Your task to perform on an android device: open chrome privacy settings Image 0: 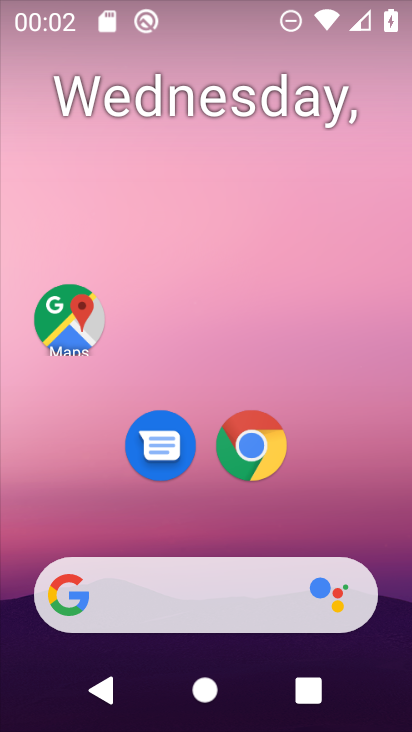
Step 0: click (268, 438)
Your task to perform on an android device: open chrome privacy settings Image 1: 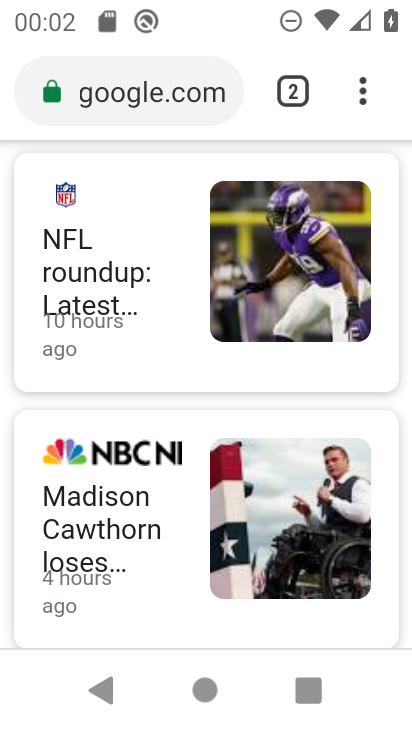
Step 1: click (368, 125)
Your task to perform on an android device: open chrome privacy settings Image 2: 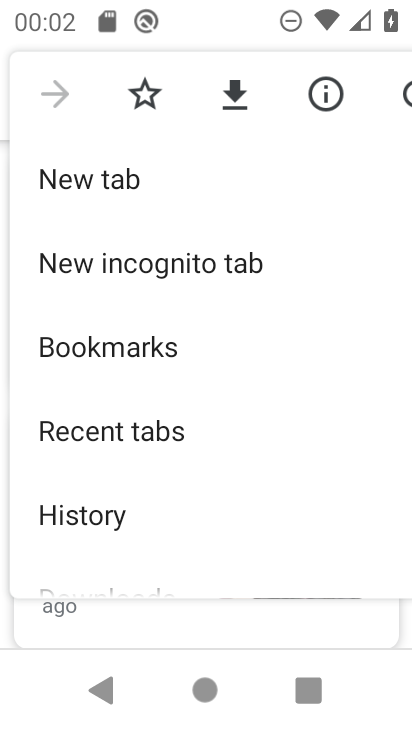
Step 2: drag from (150, 515) to (198, 294)
Your task to perform on an android device: open chrome privacy settings Image 3: 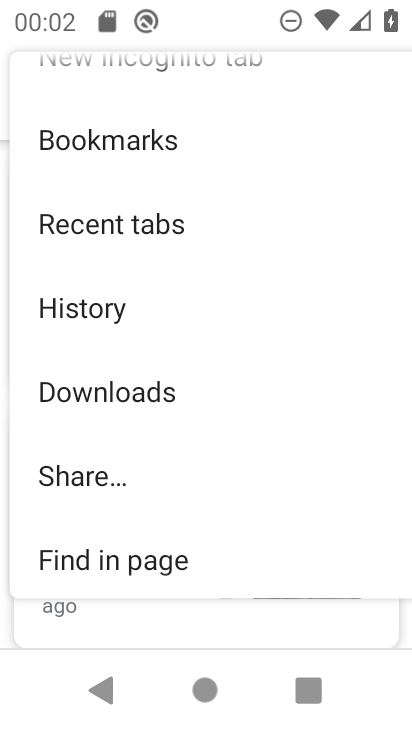
Step 3: drag from (192, 508) to (211, 343)
Your task to perform on an android device: open chrome privacy settings Image 4: 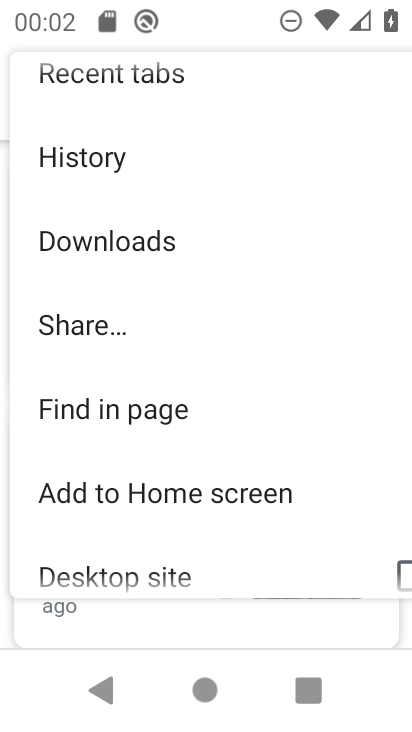
Step 4: drag from (146, 524) to (151, 359)
Your task to perform on an android device: open chrome privacy settings Image 5: 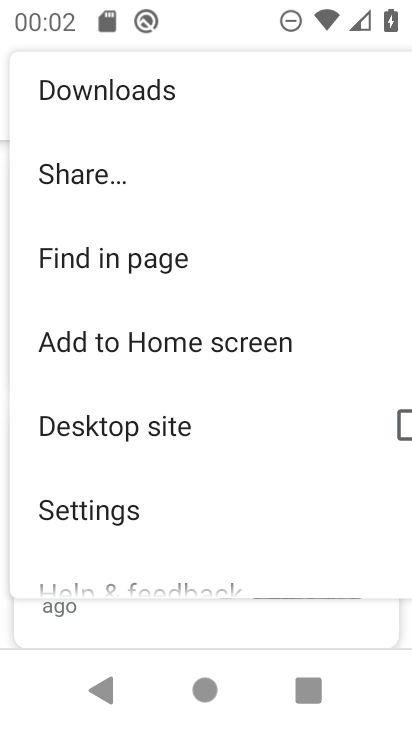
Step 5: click (164, 517)
Your task to perform on an android device: open chrome privacy settings Image 6: 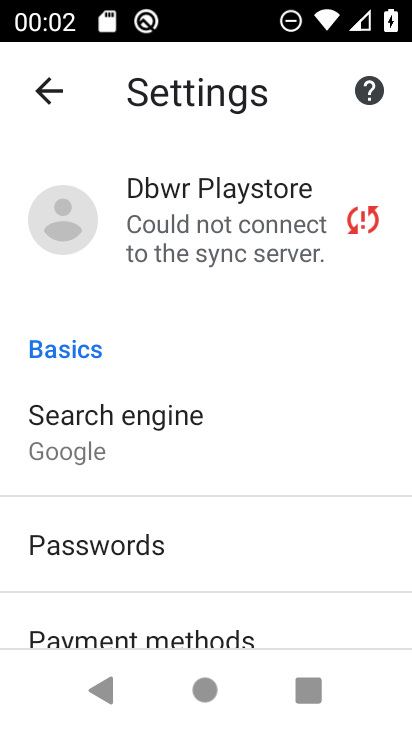
Step 6: drag from (212, 372) to (228, 335)
Your task to perform on an android device: open chrome privacy settings Image 7: 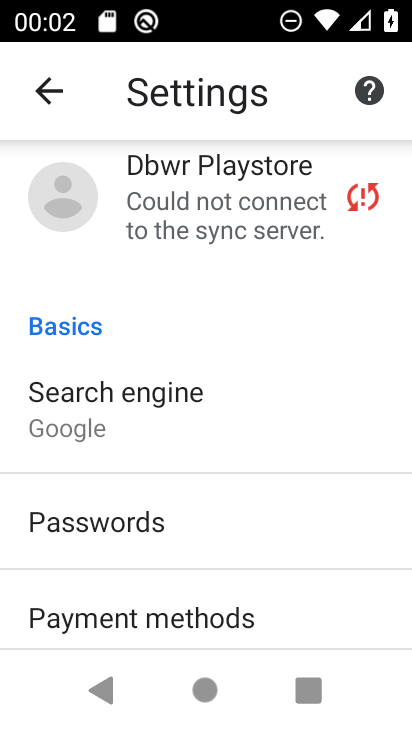
Step 7: drag from (199, 589) to (218, 268)
Your task to perform on an android device: open chrome privacy settings Image 8: 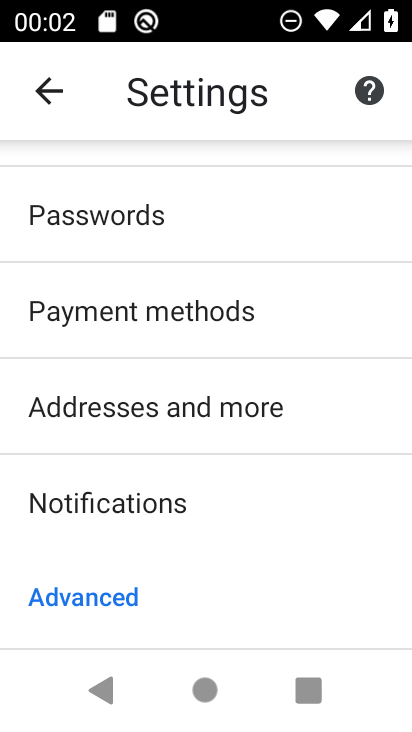
Step 8: drag from (179, 541) to (203, 343)
Your task to perform on an android device: open chrome privacy settings Image 9: 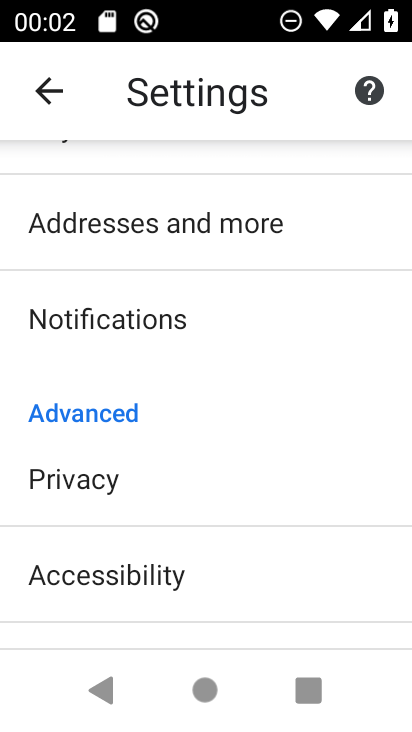
Step 9: drag from (248, 467) to (265, 354)
Your task to perform on an android device: open chrome privacy settings Image 10: 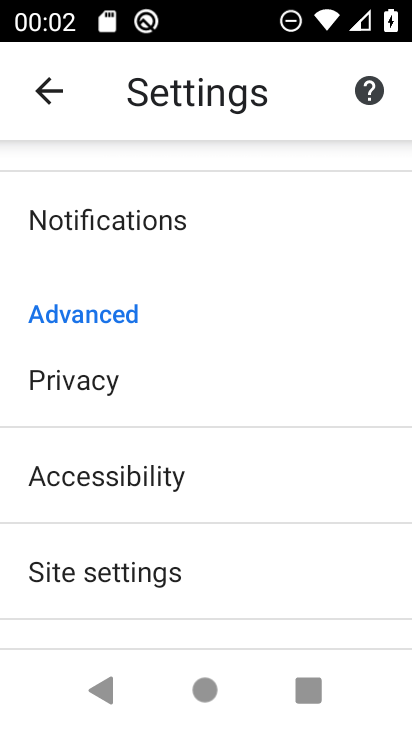
Step 10: click (155, 387)
Your task to perform on an android device: open chrome privacy settings Image 11: 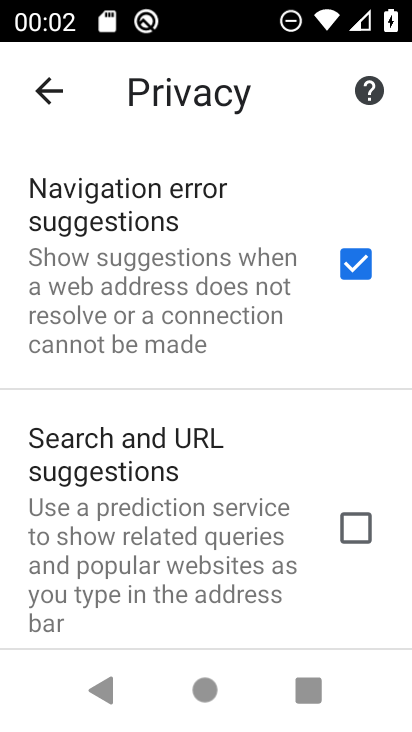
Step 11: task complete